Your task to perform on an android device: show emergency info Image 0: 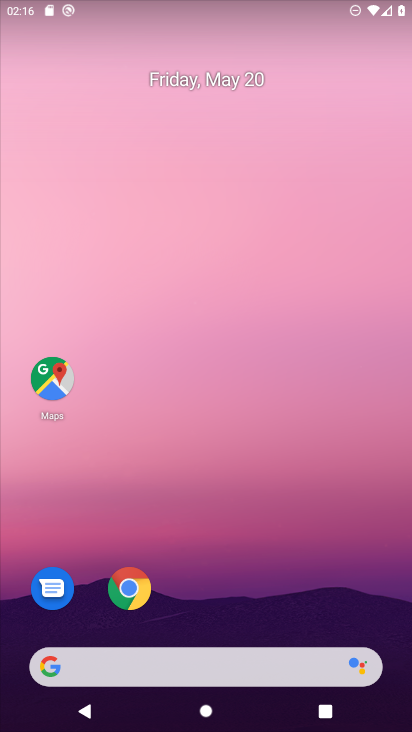
Step 0: drag from (396, 640) to (340, 106)
Your task to perform on an android device: show emergency info Image 1: 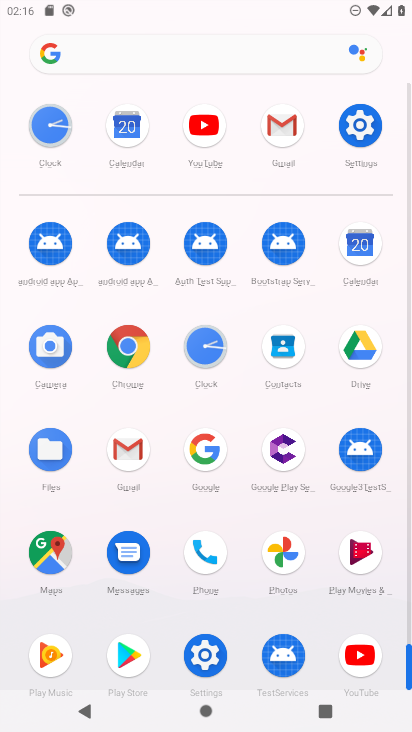
Step 1: click (200, 654)
Your task to perform on an android device: show emergency info Image 2: 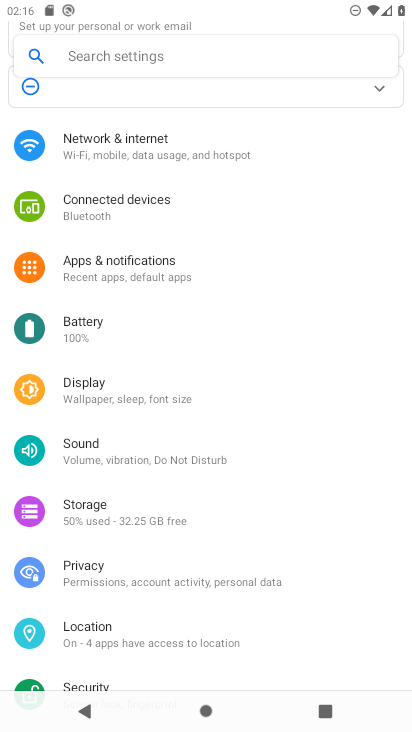
Step 2: drag from (344, 647) to (282, 158)
Your task to perform on an android device: show emergency info Image 3: 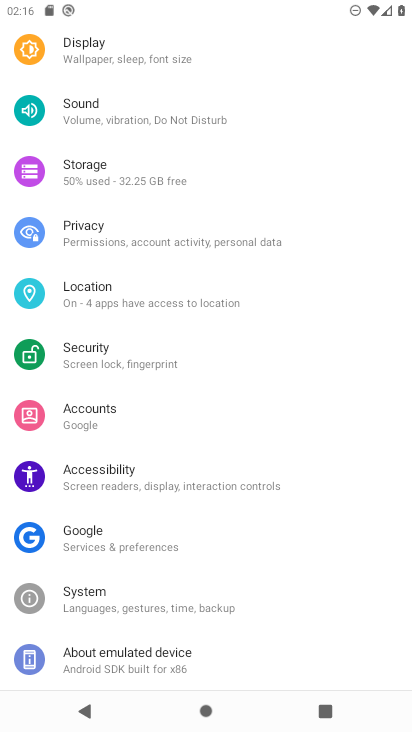
Step 3: click (101, 649)
Your task to perform on an android device: show emergency info Image 4: 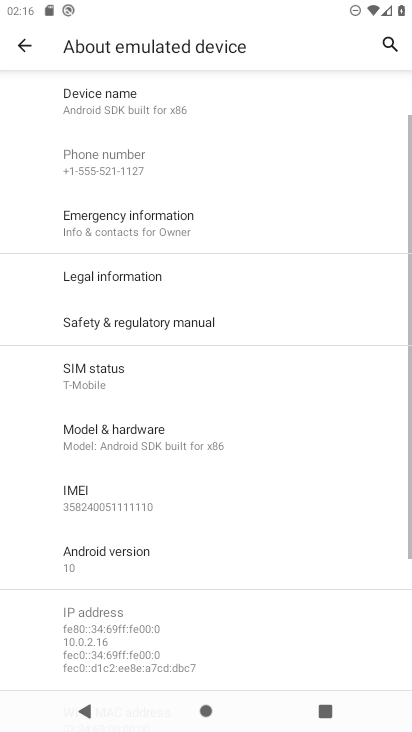
Step 4: click (115, 222)
Your task to perform on an android device: show emergency info Image 5: 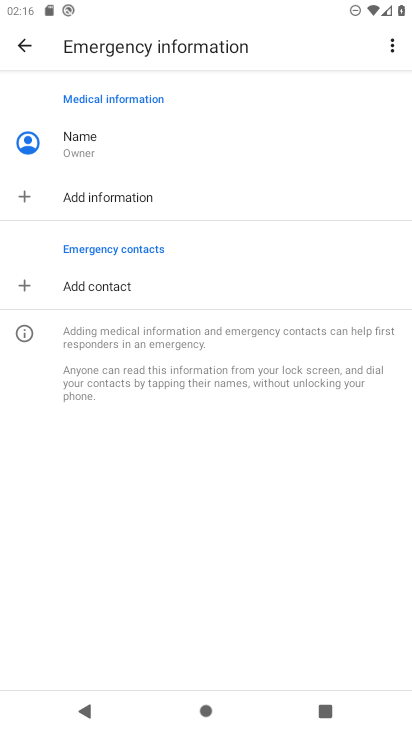
Step 5: task complete